Your task to perform on an android device: refresh tabs in the chrome app Image 0: 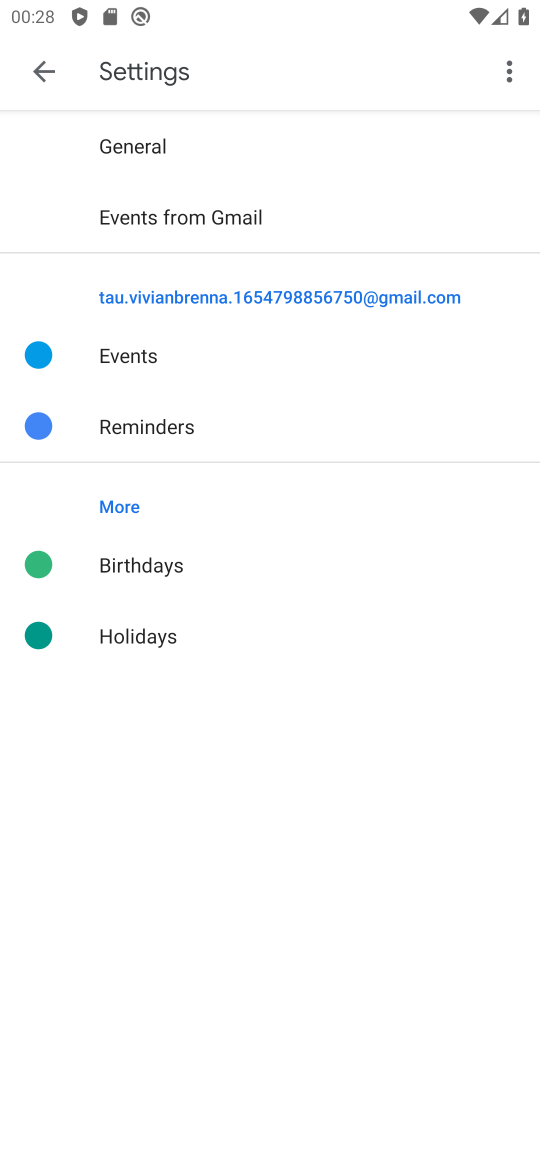
Step 0: press back button
Your task to perform on an android device: refresh tabs in the chrome app Image 1: 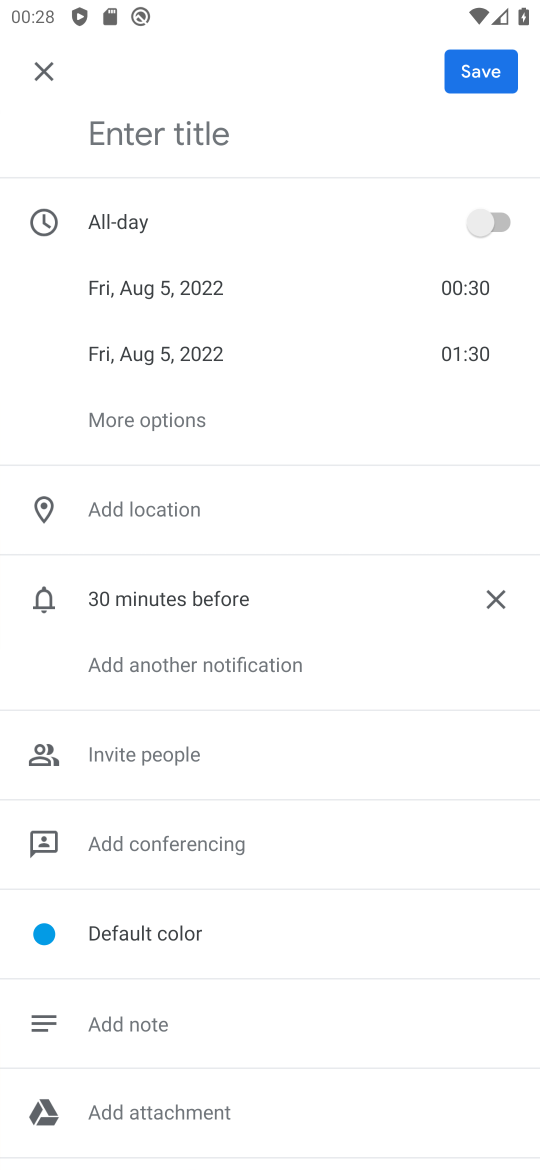
Step 1: press home button
Your task to perform on an android device: refresh tabs in the chrome app Image 2: 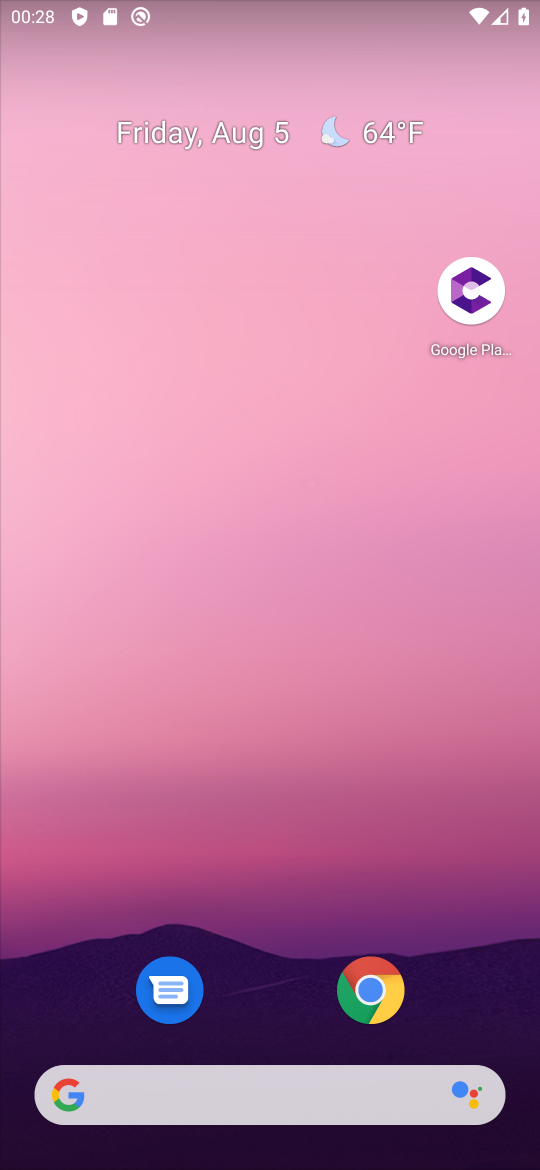
Step 2: drag from (258, 835) to (179, 147)
Your task to perform on an android device: refresh tabs in the chrome app Image 3: 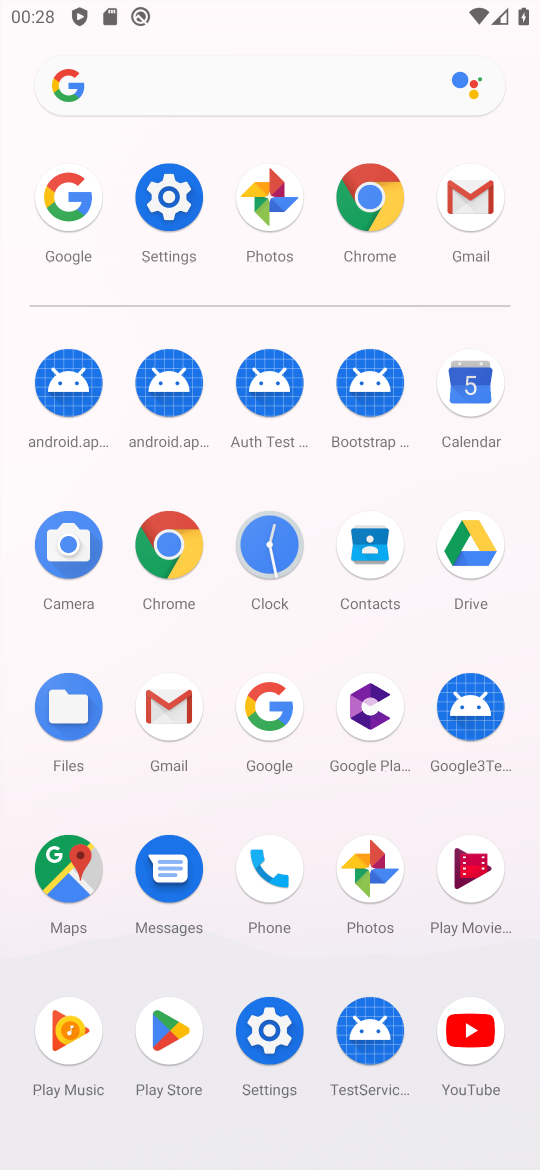
Step 3: click (367, 211)
Your task to perform on an android device: refresh tabs in the chrome app Image 4: 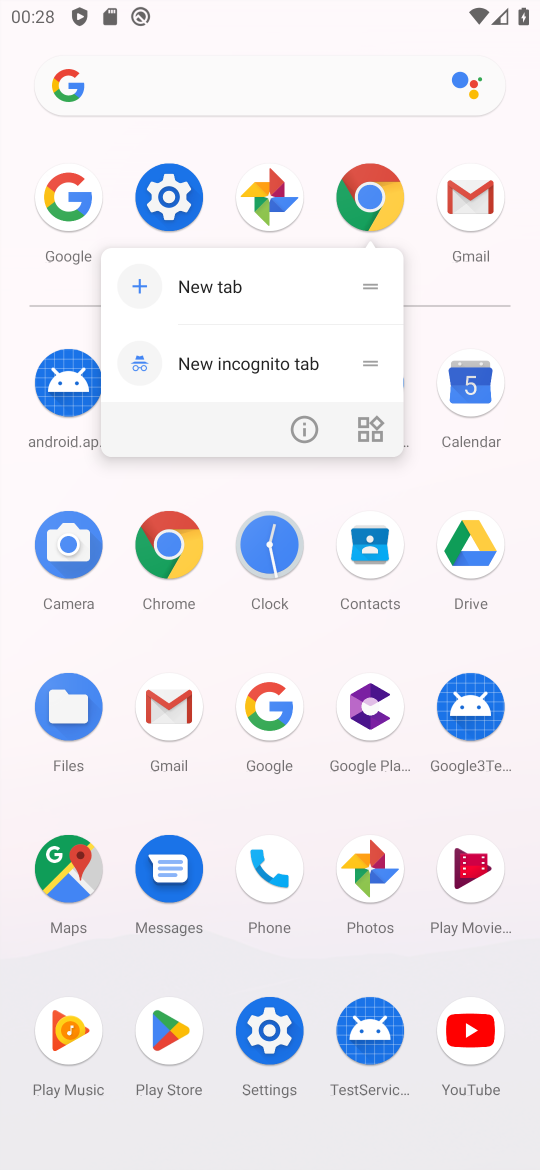
Step 4: click (367, 211)
Your task to perform on an android device: refresh tabs in the chrome app Image 5: 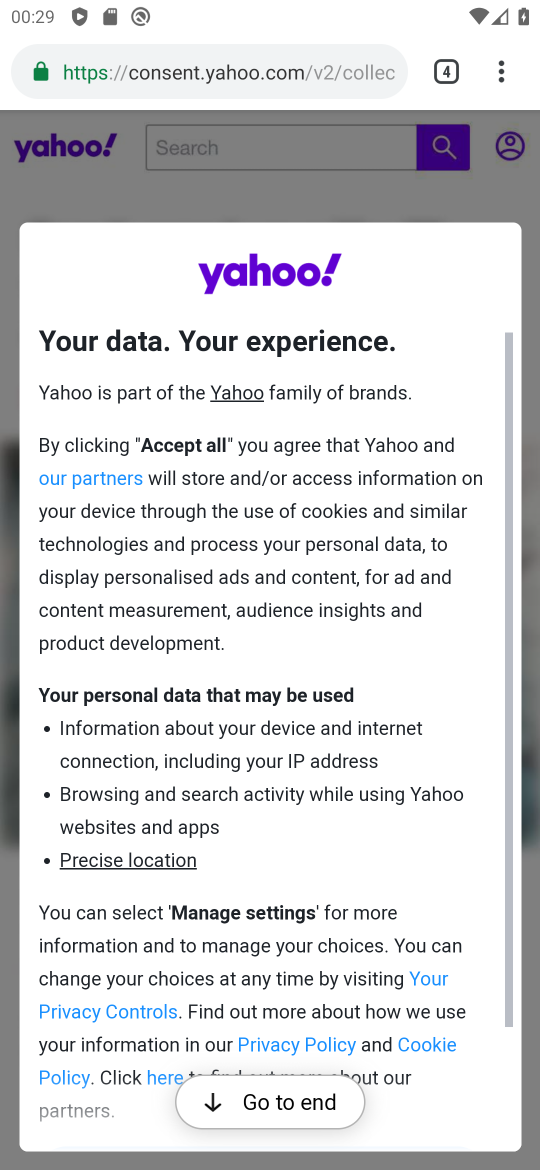
Step 5: click (501, 82)
Your task to perform on an android device: refresh tabs in the chrome app Image 6: 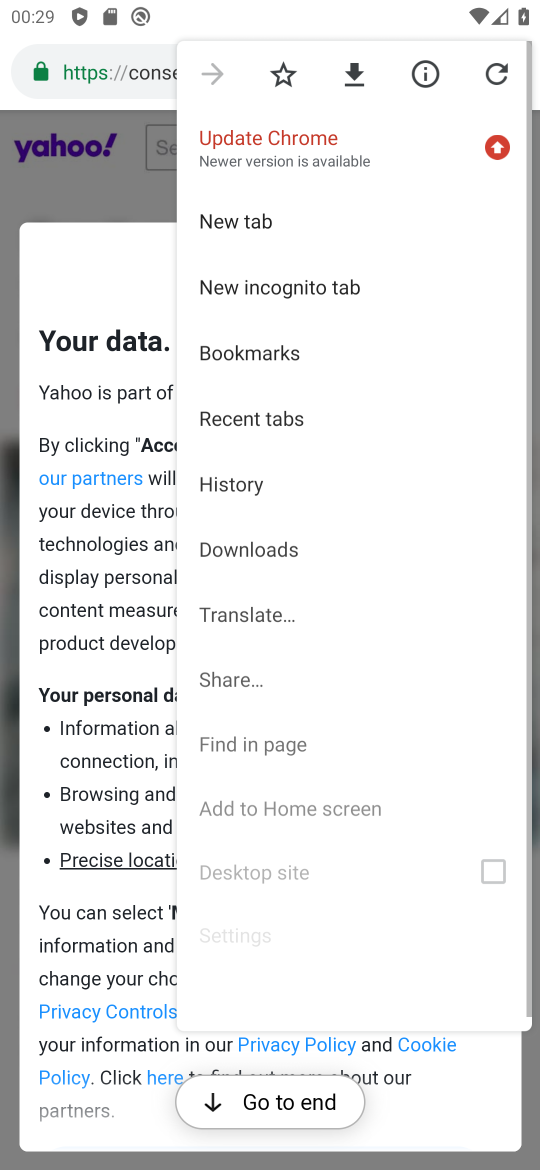
Step 6: click (501, 82)
Your task to perform on an android device: refresh tabs in the chrome app Image 7: 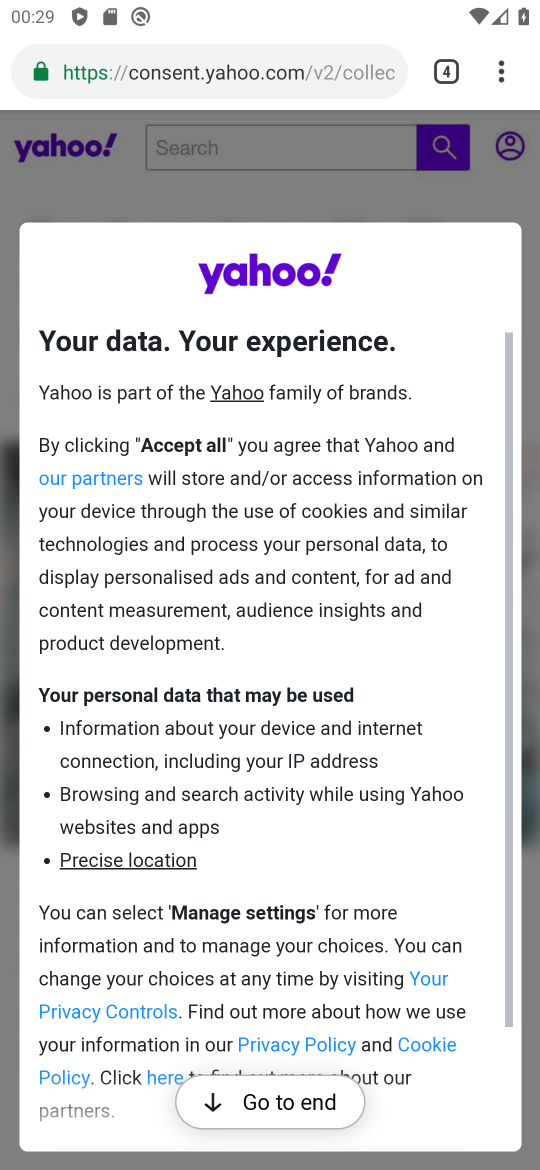
Step 7: click (506, 63)
Your task to perform on an android device: refresh tabs in the chrome app Image 8: 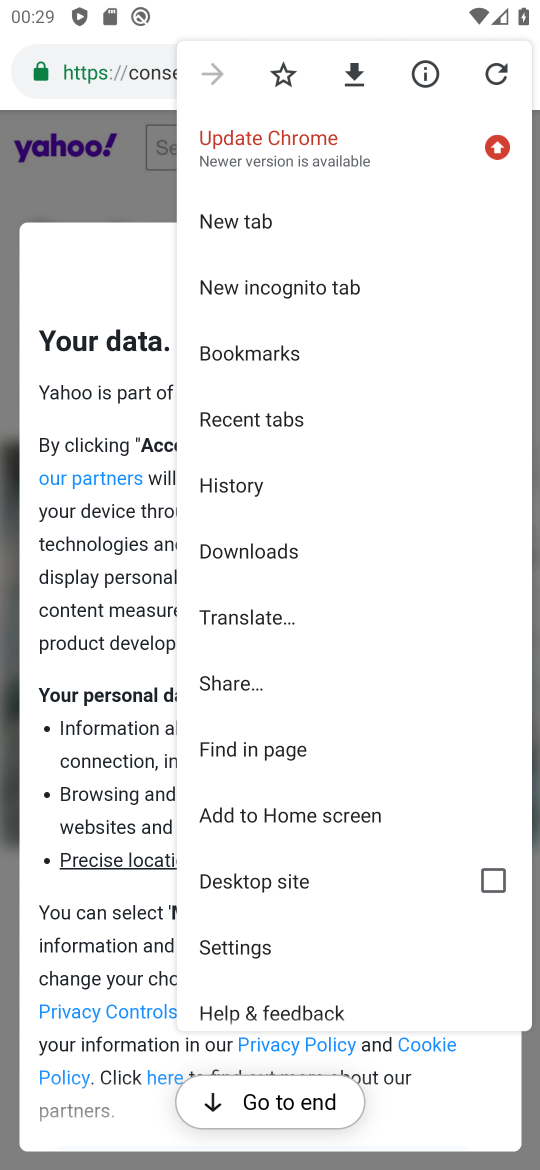
Step 8: click (489, 82)
Your task to perform on an android device: refresh tabs in the chrome app Image 9: 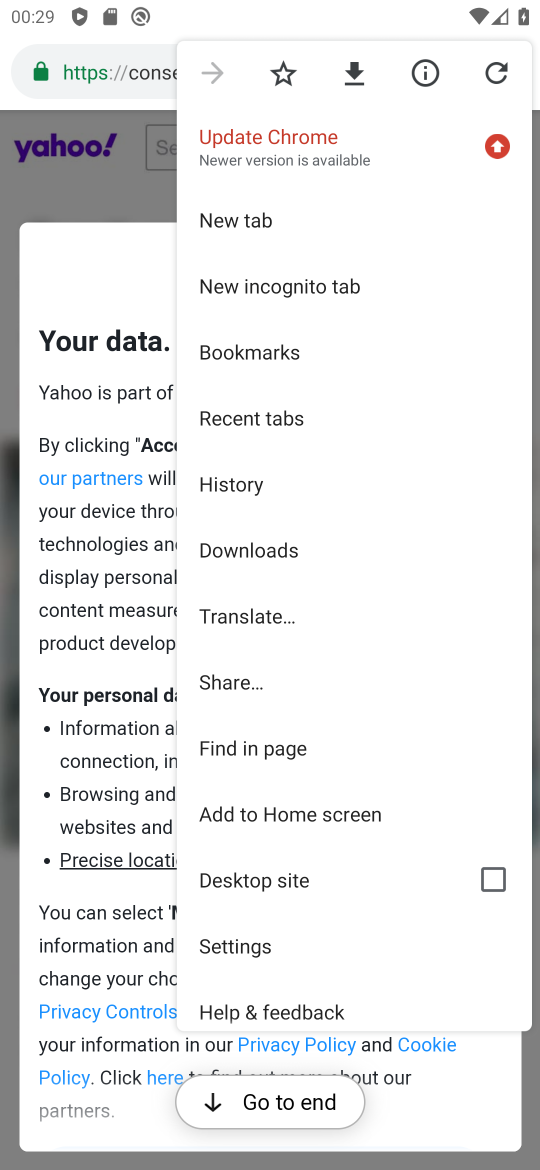
Step 9: task complete